Your task to perform on an android device: Open a new private tab in Chrome Image 0: 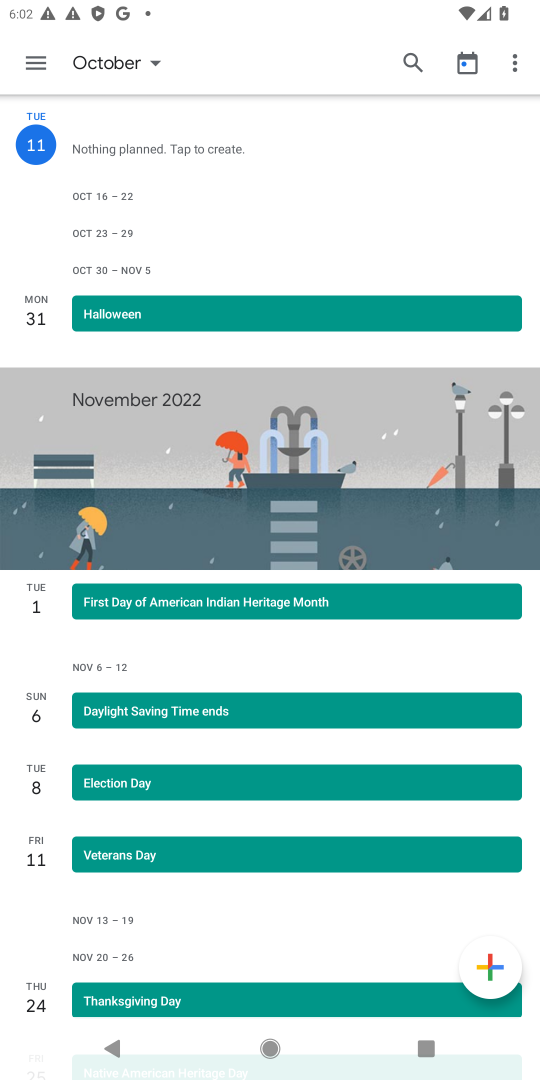
Step 0: press home button
Your task to perform on an android device: Open a new private tab in Chrome Image 1: 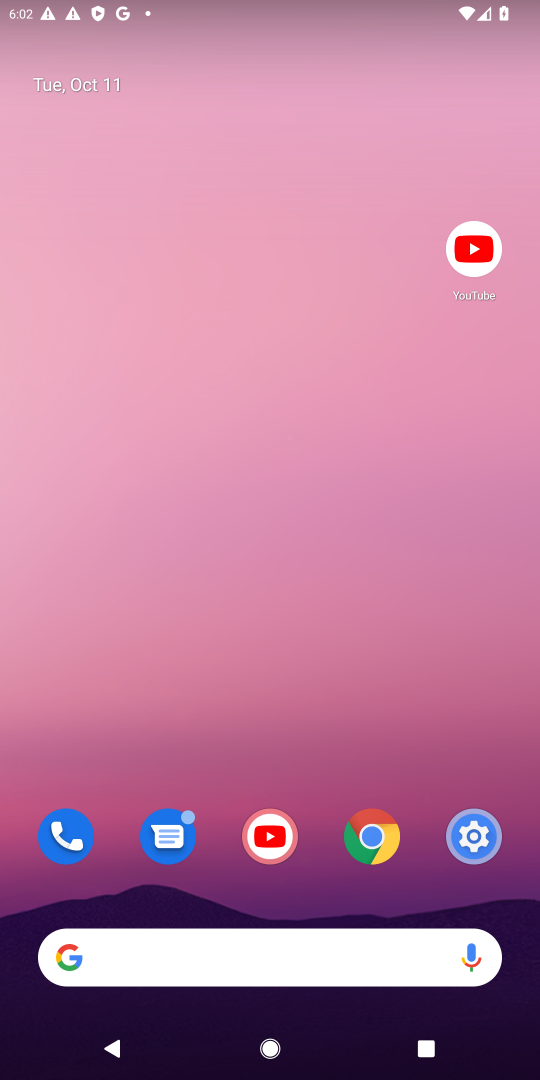
Step 1: click (366, 829)
Your task to perform on an android device: Open a new private tab in Chrome Image 2: 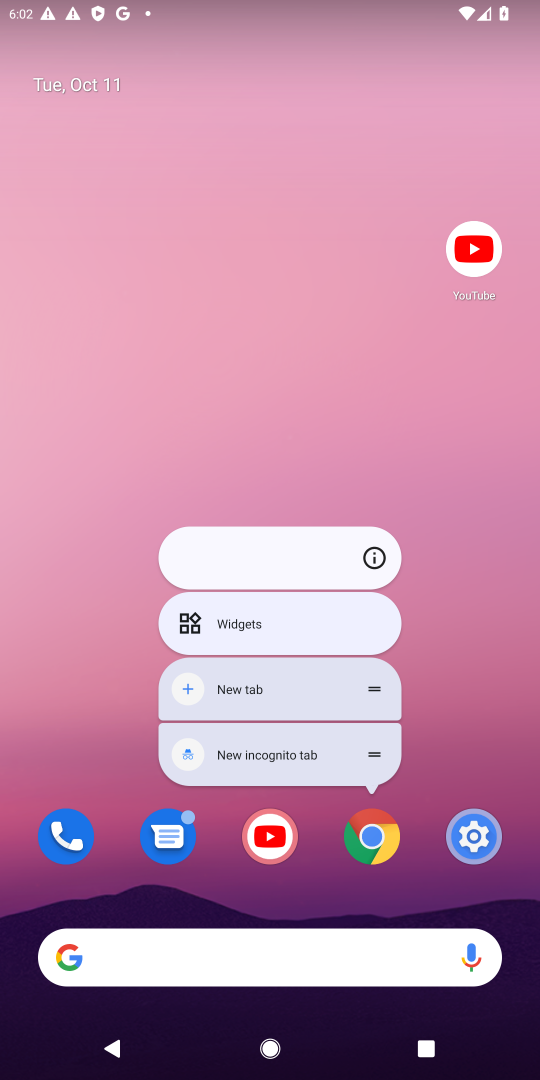
Step 2: click (376, 835)
Your task to perform on an android device: Open a new private tab in Chrome Image 3: 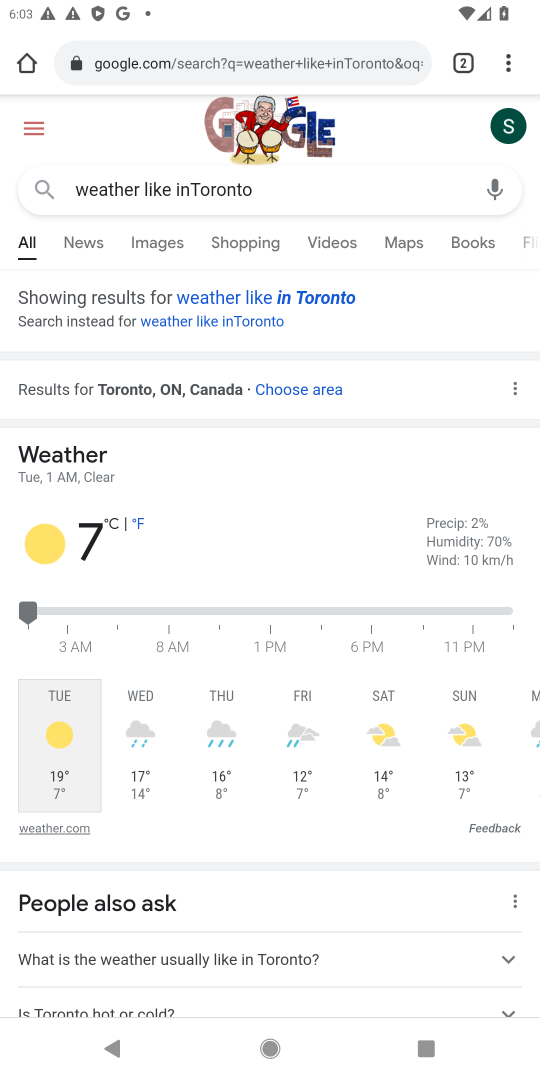
Step 3: task complete